Your task to perform on an android device: move a message to another label in the gmail app Image 0: 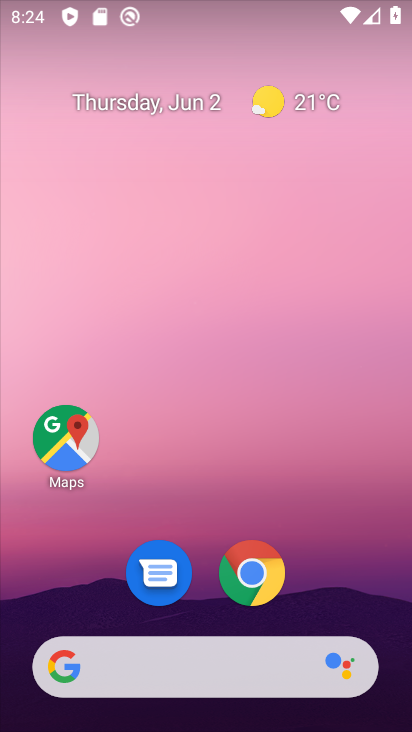
Step 0: drag from (325, 589) to (342, 112)
Your task to perform on an android device: move a message to another label in the gmail app Image 1: 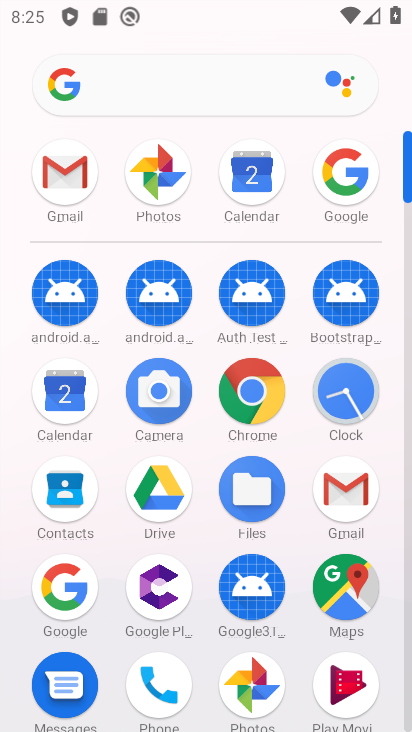
Step 1: click (341, 484)
Your task to perform on an android device: move a message to another label in the gmail app Image 2: 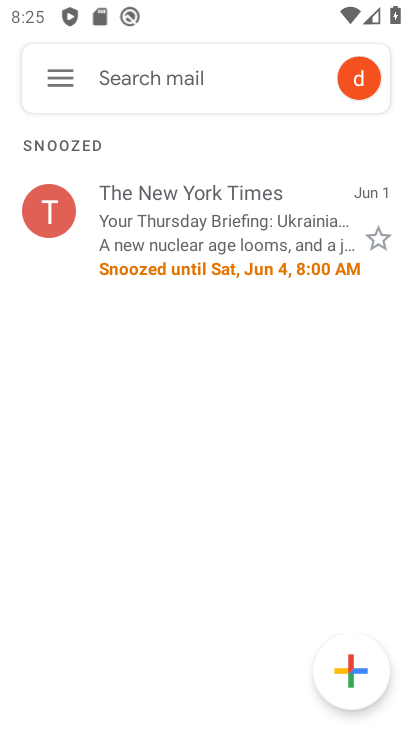
Step 2: click (236, 225)
Your task to perform on an android device: move a message to another label in the gmail app Image 3: 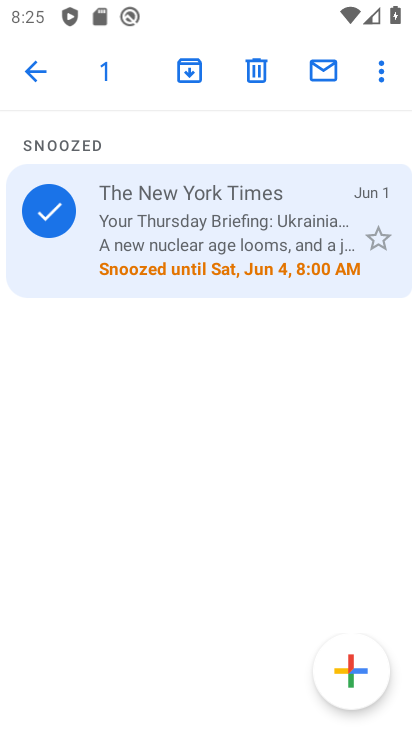
Step 3: click (369, 65)
Your task to perform on an android device: move a message to another label in the gmail app Image 4: 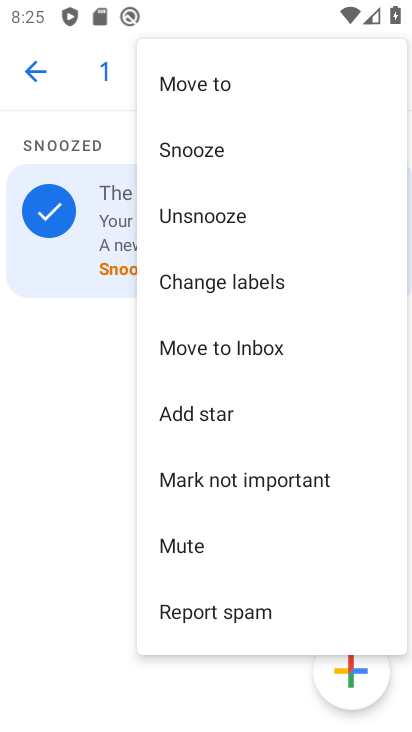
Step 4: click (234, 275)
Your task to perform on an android device: move a message to another label in the gmail app Image 5: 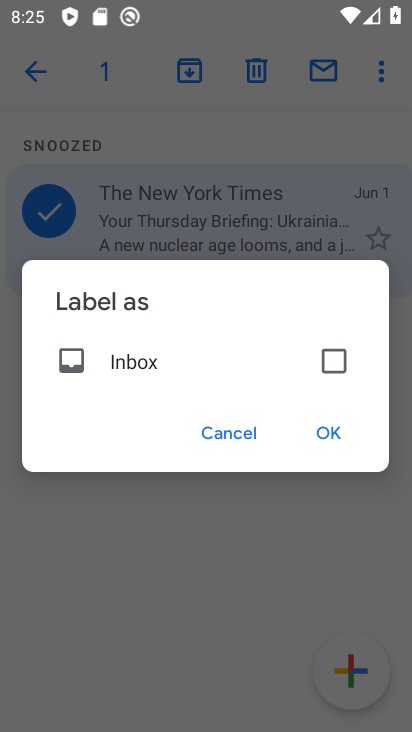
Step 5: click (333, 371)
Your task to perform on an android device: move a message to another label in the gmail app Image 6: 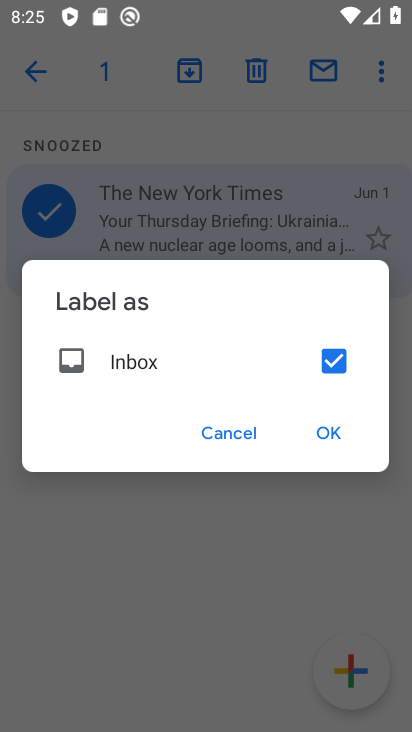
Step 6: click (329, 436)
Your task to perform on an android device: move a message to another label in the gmail app Image 7: 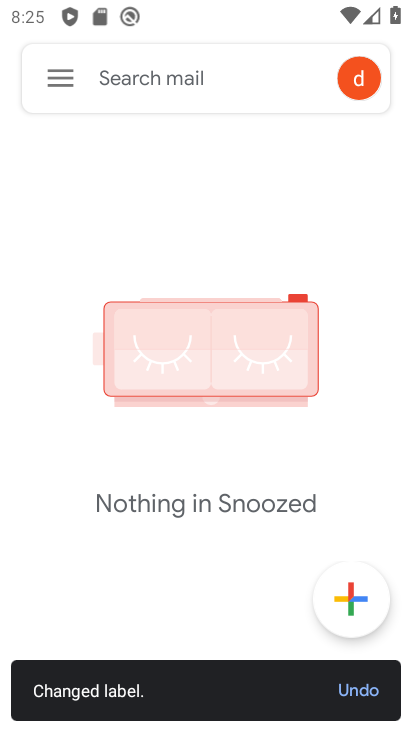
Step 7: task complete